Your task to perform on an android device: When is my next appointment? Image 0: 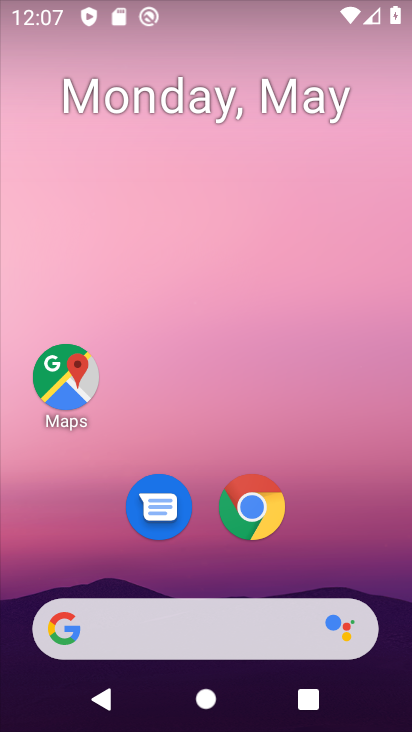
Step 0: drag from (239, 684) to (260, 47)
Your task to perform on an android device: When is my next appointment? Image 1: 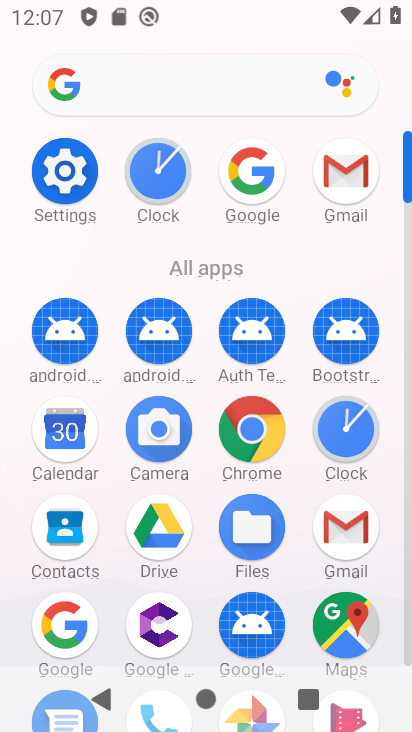
Step 1: drag from (303, 612) to (314, 126)
Your task to perform on an android device: When is my next appointment? Image 2: 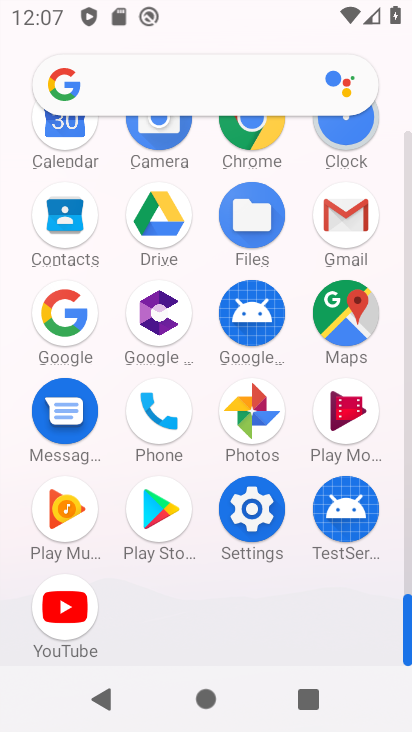
Step 2: click (49, 130)
Your task to perform on an android device: When is my next appointment? Image 3: 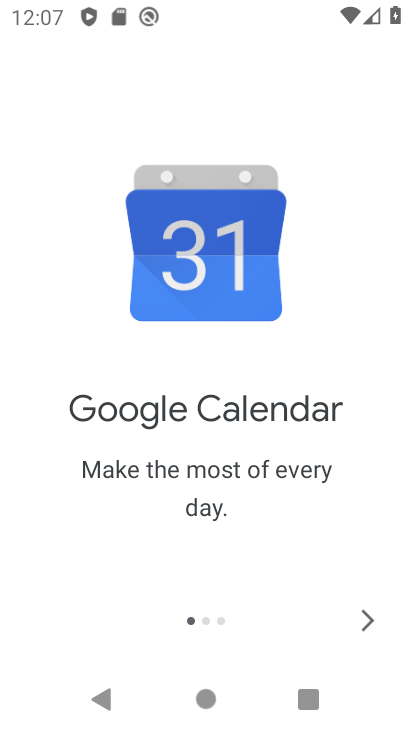
Step 3: click (371, 621)
Your task to perform on an android device: When is my next appointment? Image 4: 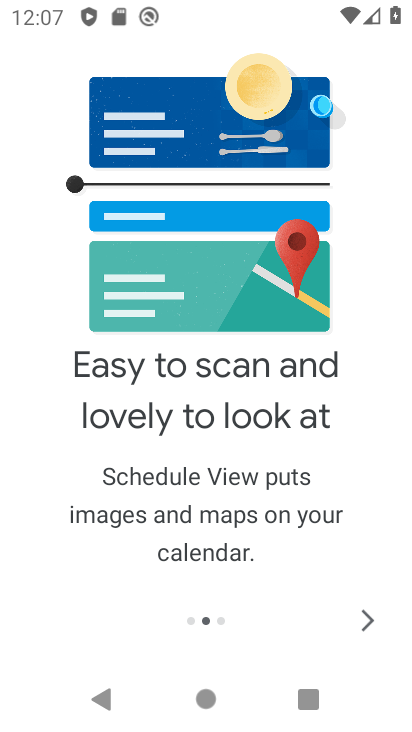
Step 4: click (371, 621)
Your task to perform on an android device: When is my next appointment? Image 5: 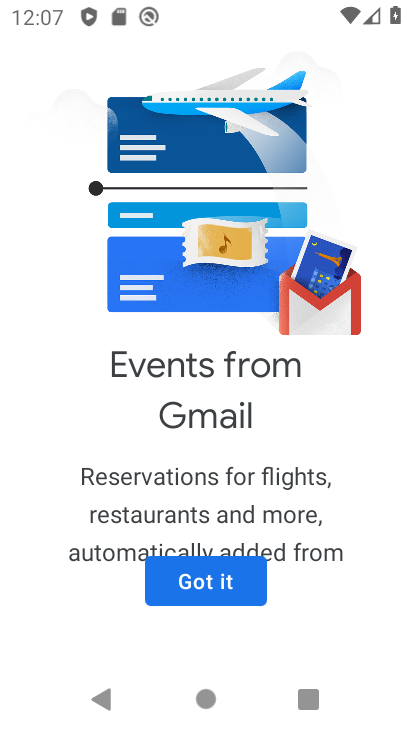
Step 5: click (177, 577)
Your task to perform on an android device: When is my next appointment? Image 6: 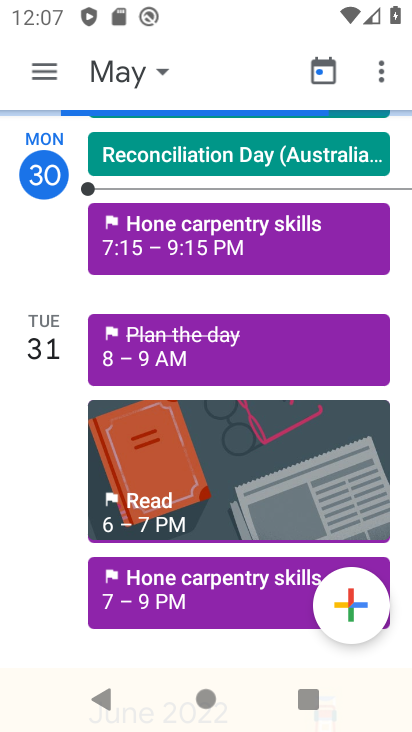
Step 6: click (136, 68)
Your task to perform on an android device: When is my next appointment? Image 7: 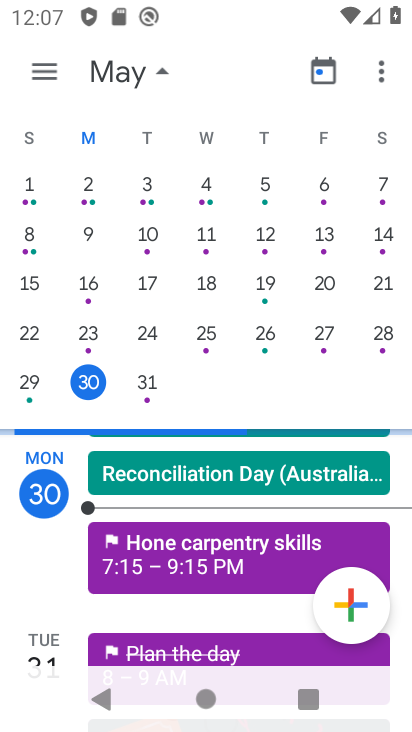
Step 7: click (144, 377)
Your task to perform on an android device: When is my next appointment? Image 8: 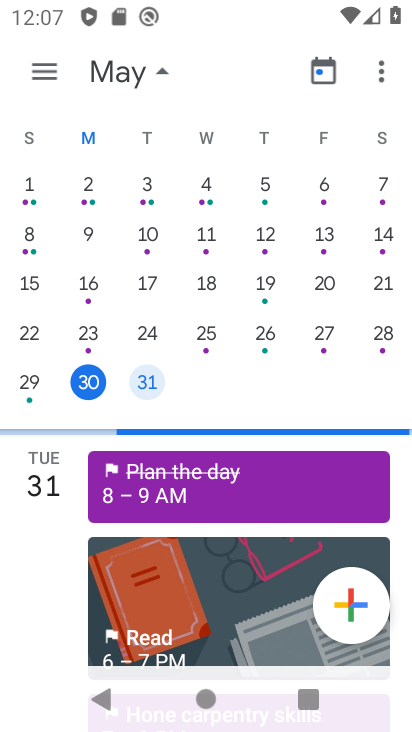
Step 8: click (160, 67)
Your task to perform on an android device: When is my next appointment? Image 9: 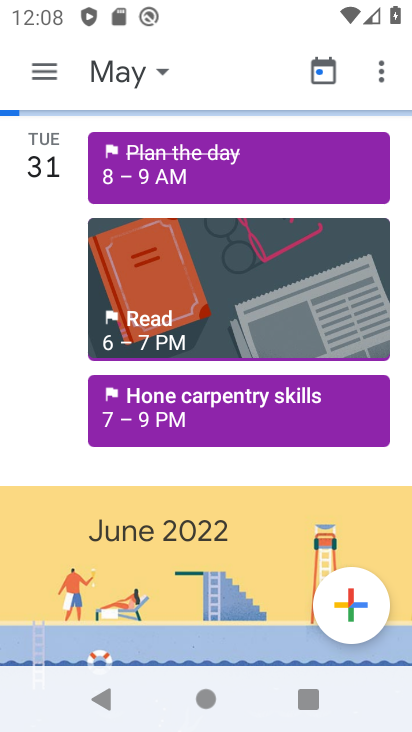
Step 9: task complete